Your task to perform on an android device: Open calendar and show me the second week of next month Image 0: 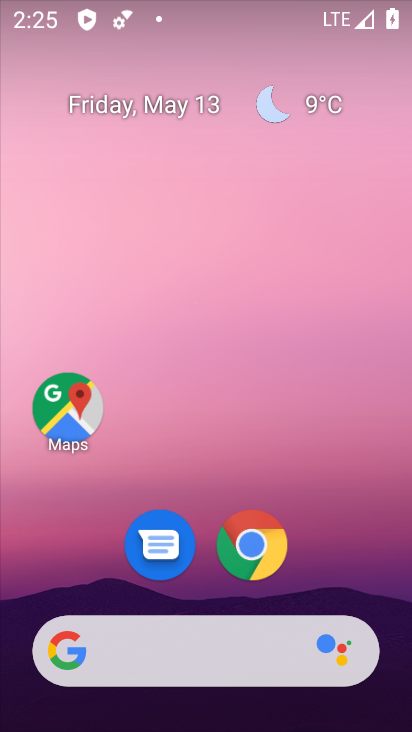
Step 0: drag from (293, 570) to (361, 70)
Your task to perform on an android device: Open calendar and show me the second week of next month Image 1: 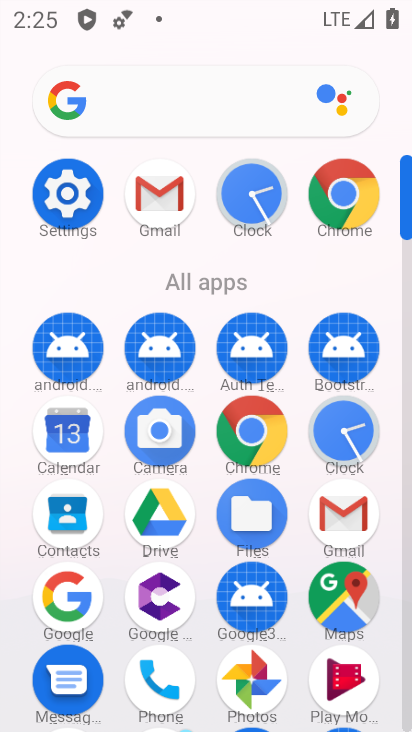
Step 1: click (70, 429)
Your task to perform on an android device: Open calendar and show me the second week of next month Image 2: 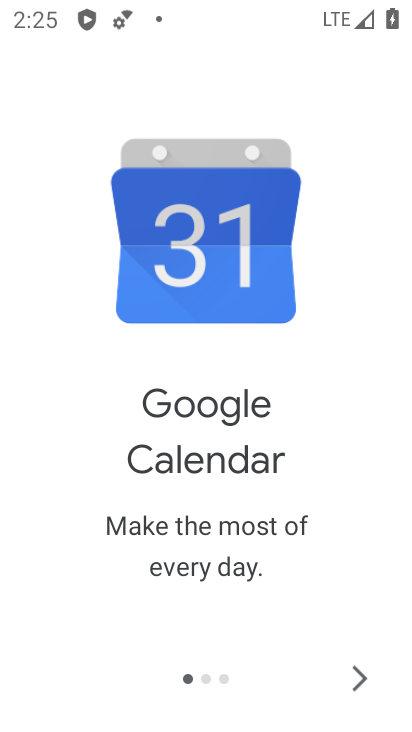
Step 2: click (362, 679)
Your task to perform on an android device: Open calendar and show me the second week of next month Image 3: 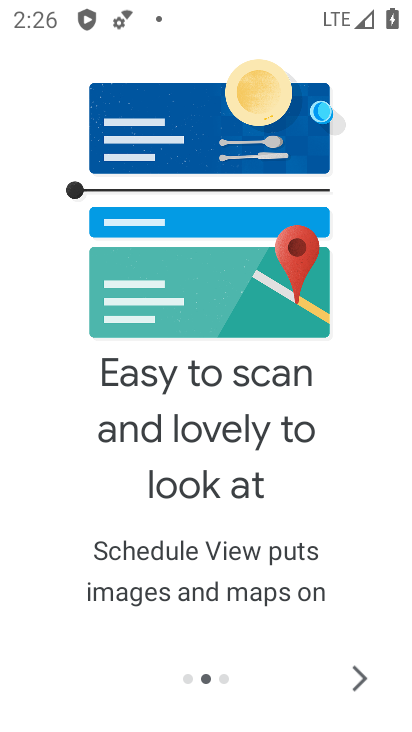
Step 3: click (361, 671)
Your task to perform on an android device: Open calendar and show me the second week of next month Image 4: 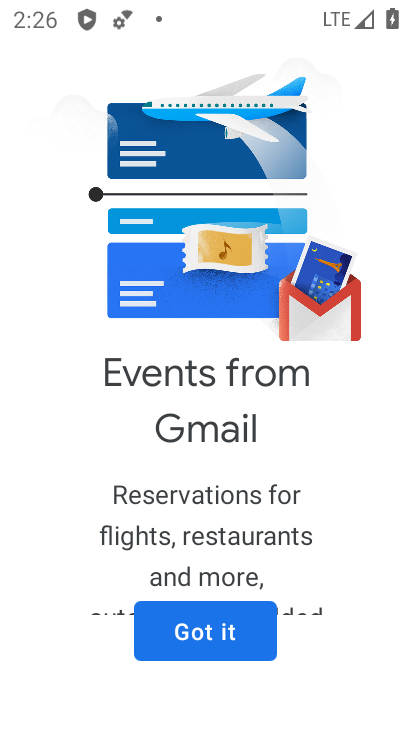
Step 4: click (200, 619)
Your task to perform on an android device: Open calendar and show me the second week of next month Image 5: 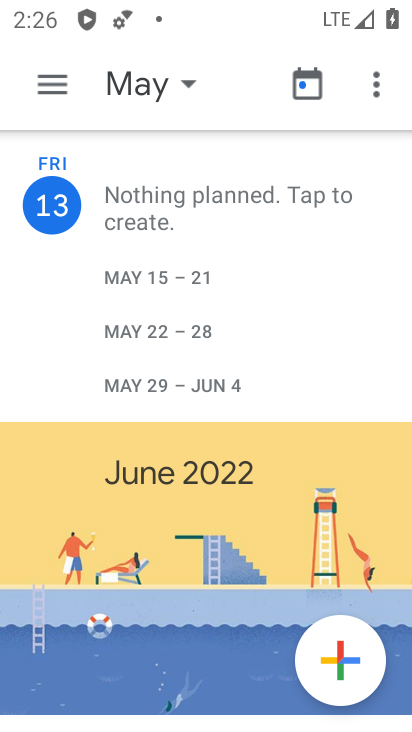
Step 5: click (178, 82)
Your task to perform on an android device: Open calendar and show me the second week of next month Image 6: 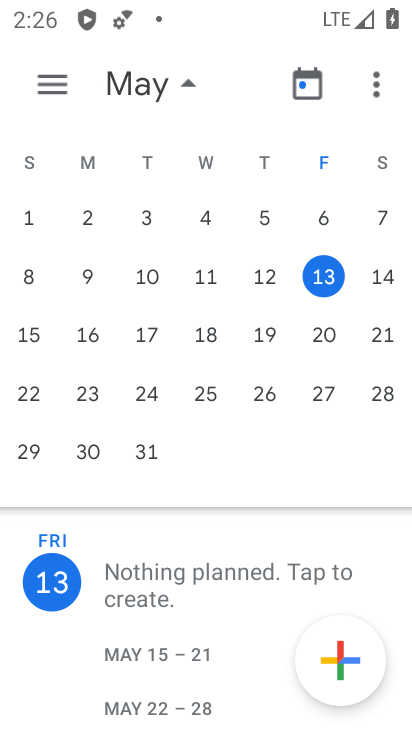
Step 6: drag from (403, 219) to (9, 205)
Your task to perform on an android device: Open calendar and show me the second week of next month Image 7: 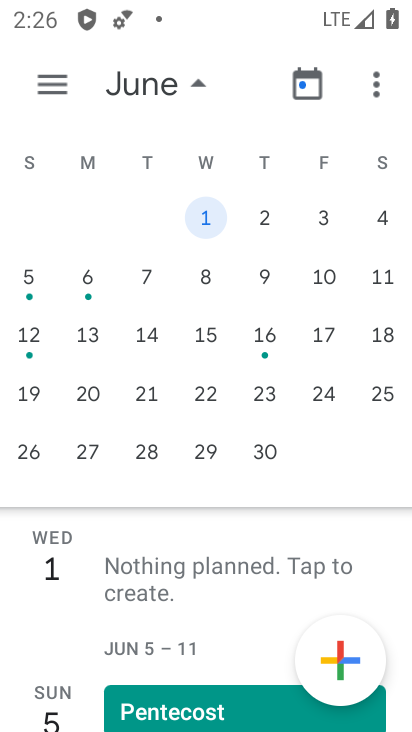
Step 7: click (145, 269)
Your task to perform on an android device: Open calendar and show me the second week of next month Image 8: 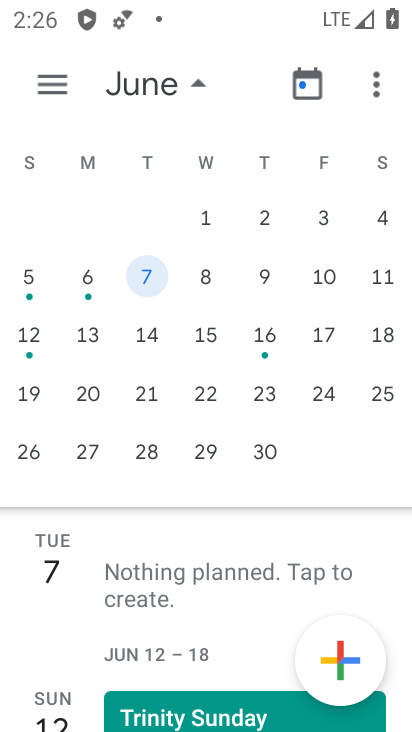
Step 8: task complete